Your task to perform on an android device: turn on sleep mode Image 0: 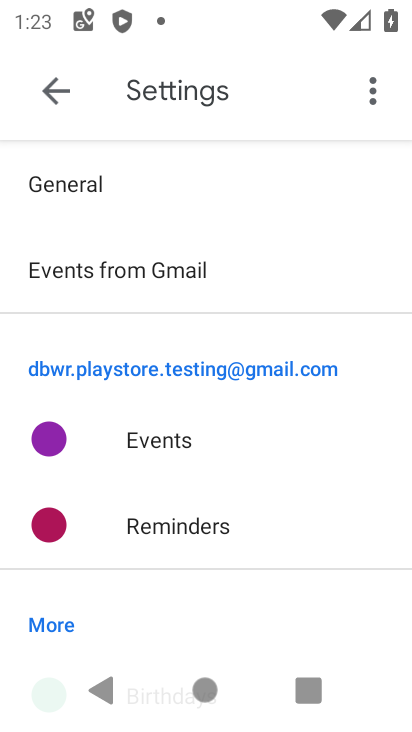
Step 0: press home button
Your task to perform on an android device: turn on sleep mode Image 1: 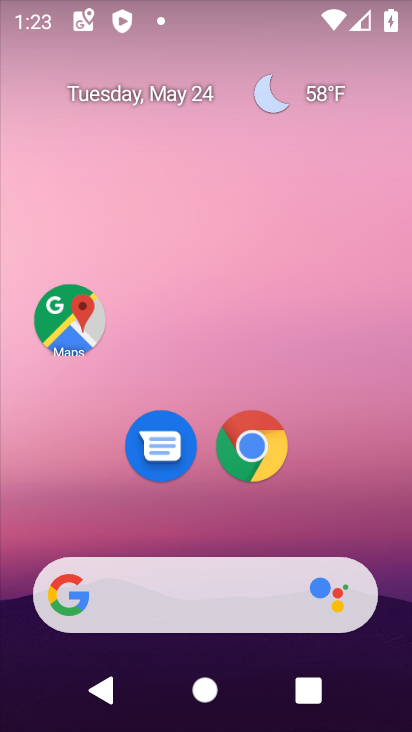
Step 1: drag from (218, 507) to (230, 186)
Your task to perform on an android device: turn on sleep mode Image 2: 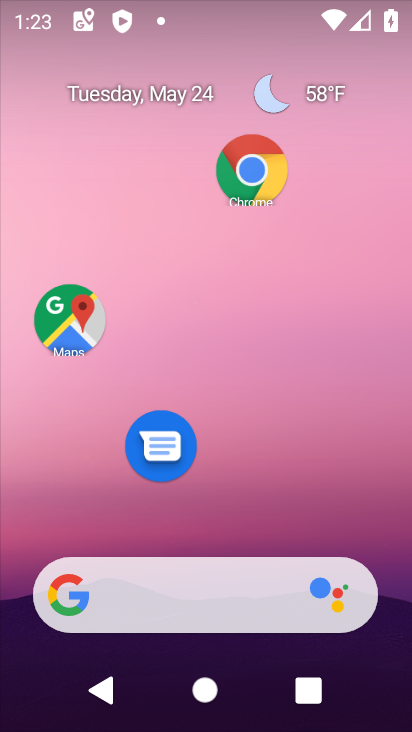
Step 2: drag from (225, 462) to (243, 10)
Your task to perform on an android device: turn on sleep mode Image 3: 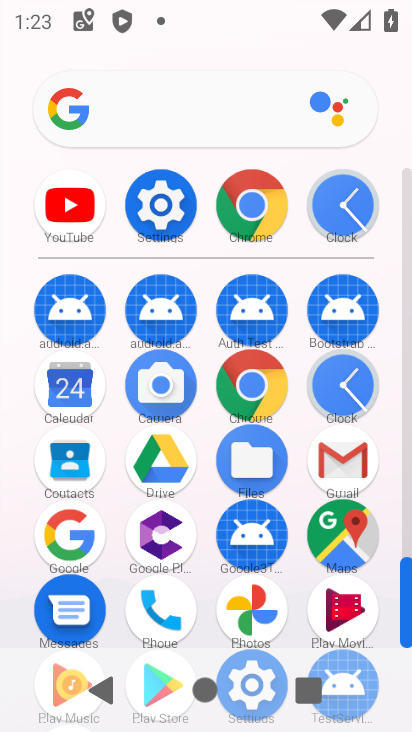
Step 3: click (166, 214)
Your task to perform on an android device: turn on sleep mode Image 4: 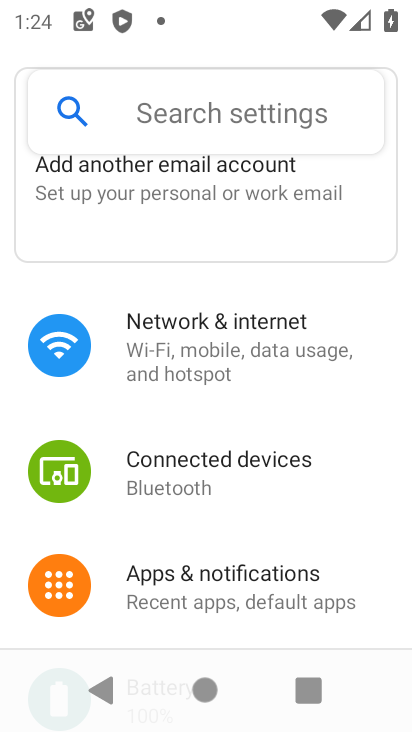
Step 4: drag from (170, 552) to (283, 155)
Your task to perform on an android device: turn on sleep mode Image 5: 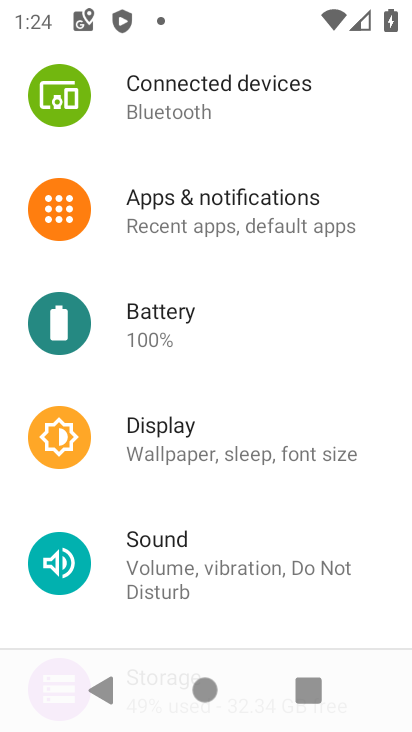
Step 5: drag from (193, 474) to (161, 288)
Your task to perform on an android device: turn on sleep mode Image 6: 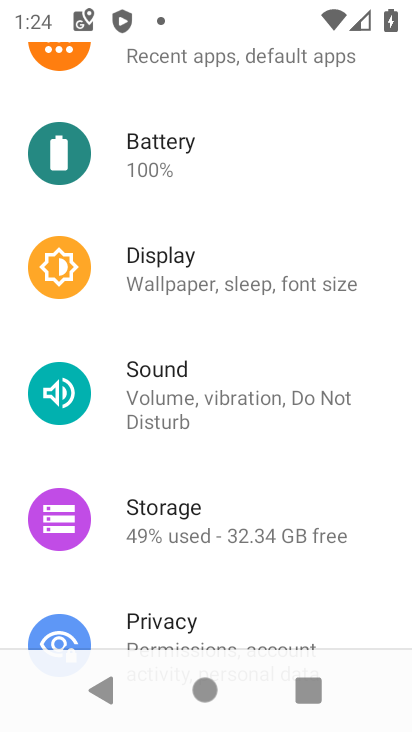
Step 6: click (175, 276)
Your task to perform on an android device: turn on sleep mode Image 7: 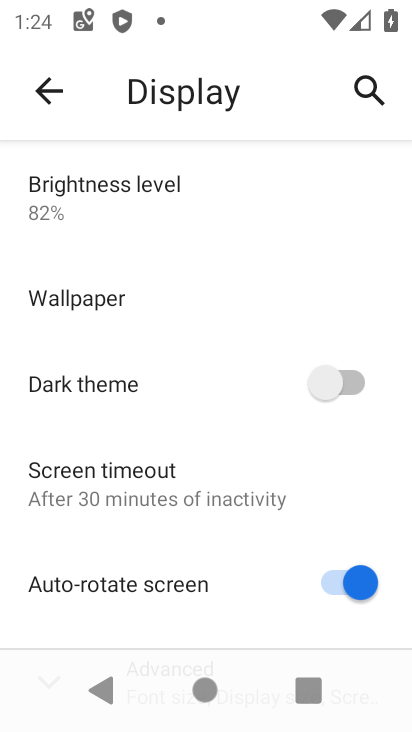
Step 7: drag from (111, 506) to (174, 300)
Your task to perform on an android device: turn on sleep mode Image 8: 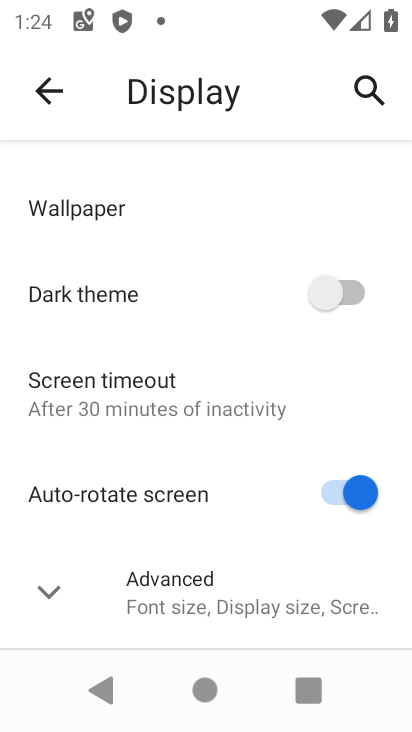
Step 8: click (148, 610)
Your task to perform on an android device: turn on sleep mode Image 9: 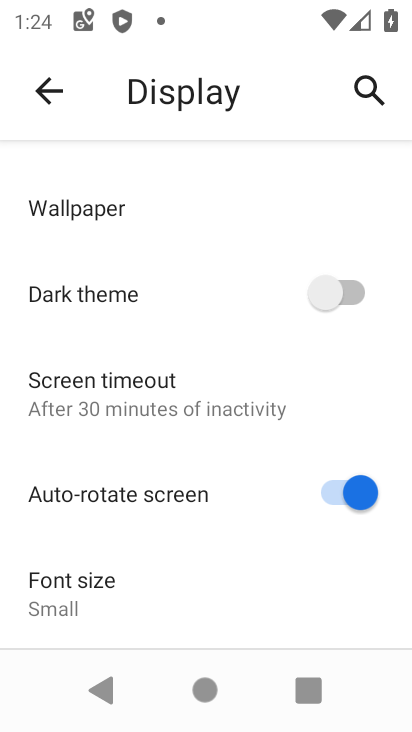
Step 9: task complete